Your task to perform on an android device: choose inbox layout in the gmail app Image 0: 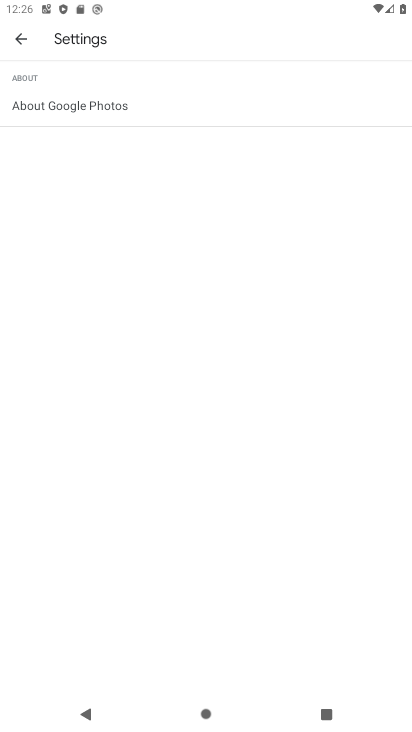
Step 0: press home button
Your task to perform on an android device: choose inbox layout in the gmail app Image 1: 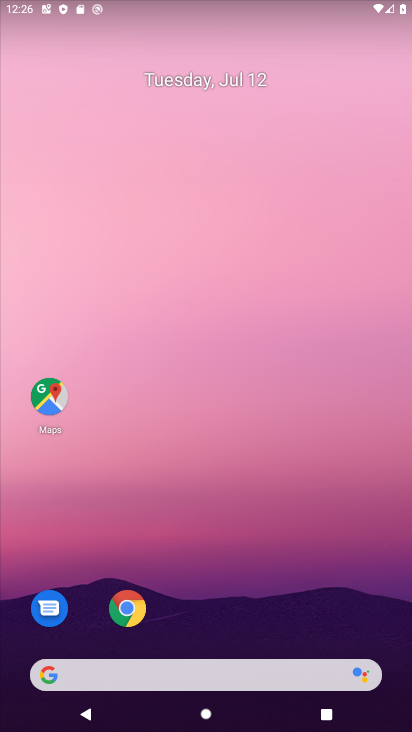
Step 1: drag from (196, 618) to (306, 72)
Your task to perform on an android device: choose inbox layout in the gmail app Image 2: 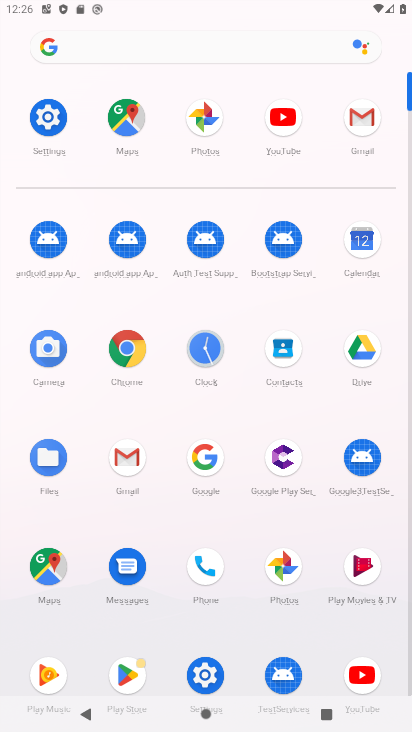
Step 2: click (371, 110)
Your task to perform on an android device: choose inbox layout in the gmail app Image 3: 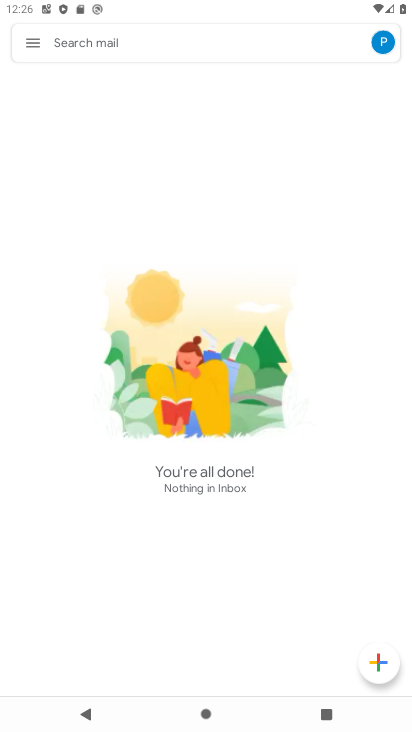
Step 3: click (20, 39)
Your task to perform on an android device: choose inbox layout in the gmail app Image 4: 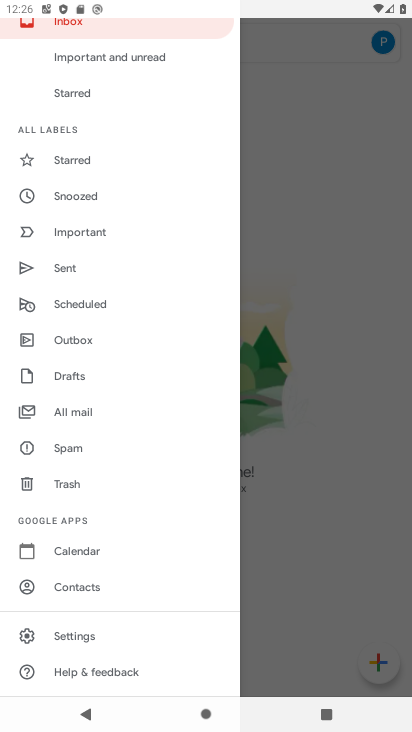
Step 4: click (100, 629)
Your task to perform on an android device: choose inbox layout in the gmail app Image 5: 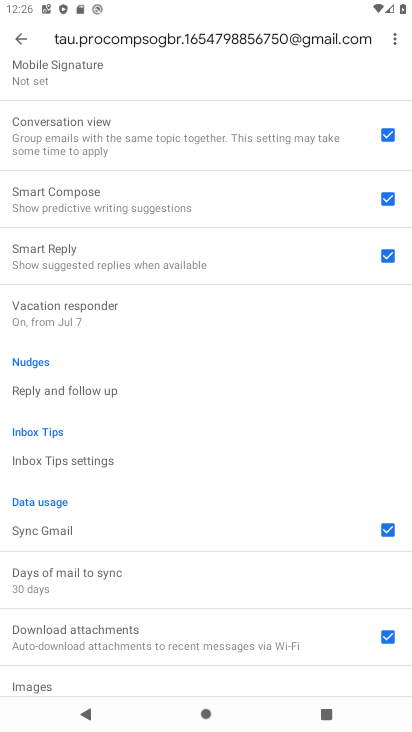
Step 5: drag from (178, 68) to (181, 610)
Your task to perform on an android device: choose inbox layout in the gmail app Image 6: 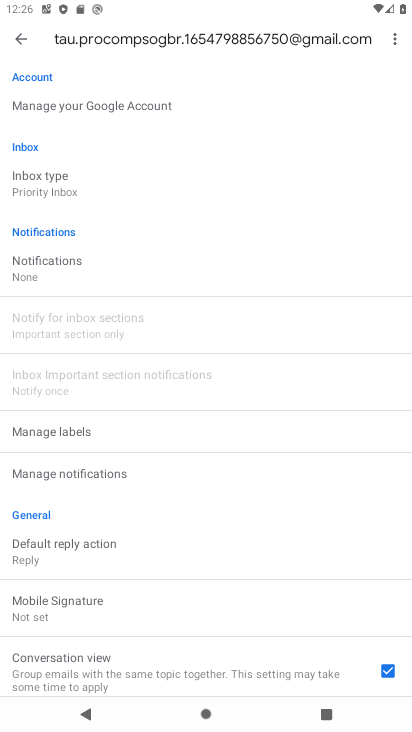
Step 6: drag from (181, 113) to (198, 639)
Your task to perform on an android device: choose inbox layout in the gmail app Image 7: 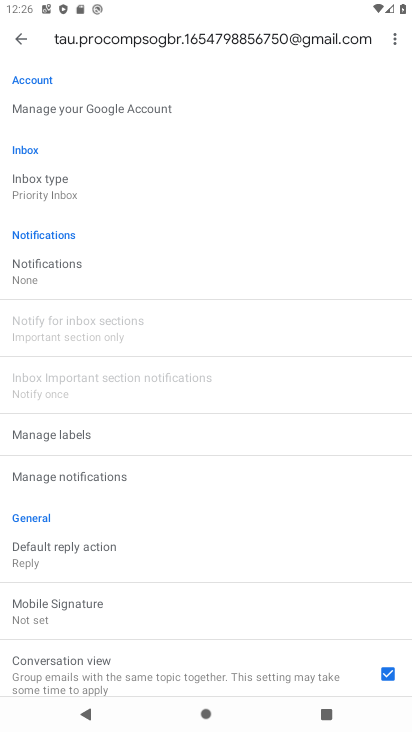
Step 7: click (100, 200)
Your task to perform on an android device: choose inbox layout in the gmail app Image 8: 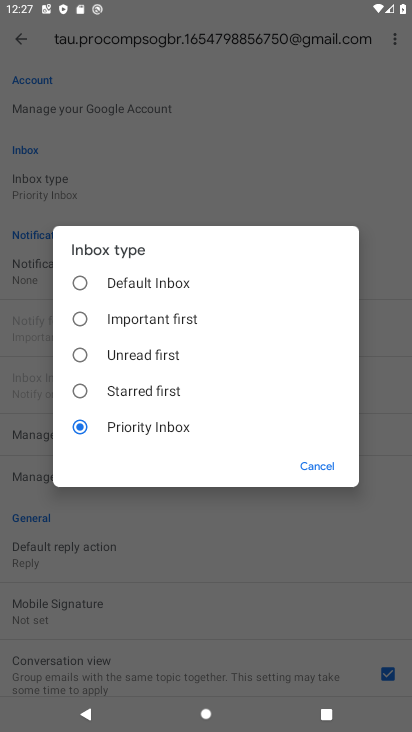
Step 8: task complete